Your task to perform on an android device: toggle notification dots Image 0: 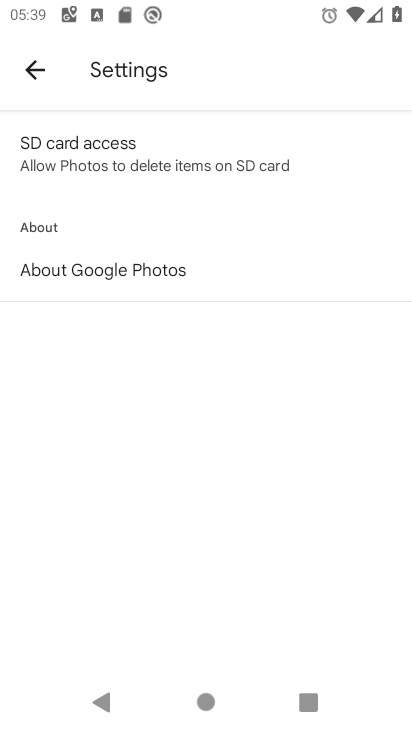
Step 0: press home button
Your task to perform on an android device: toggle notification dots Image 1: 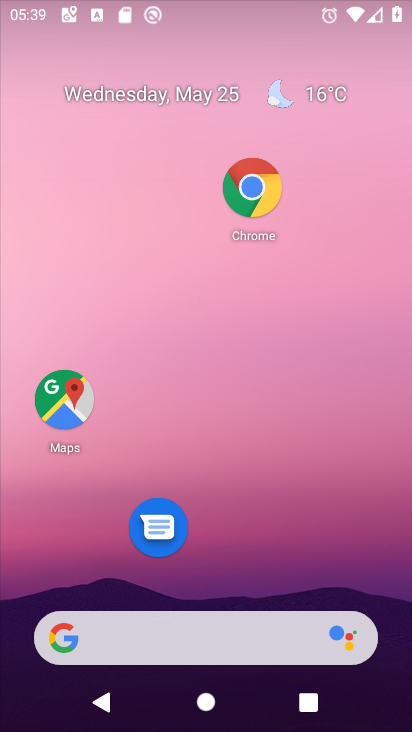
Step 1: drag from (287, 643) to (328, 43)
Your task to perform on an android device: toggle notification dots Image 2: 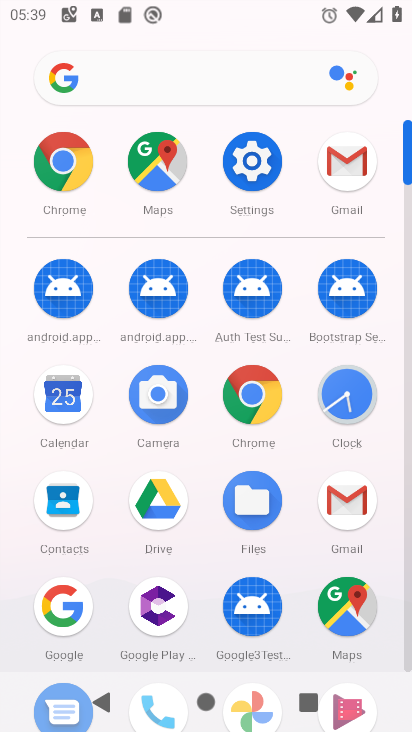
Step 2: click (271, 166)
Your task to perform on an android device: toggle notification dots Image 3: 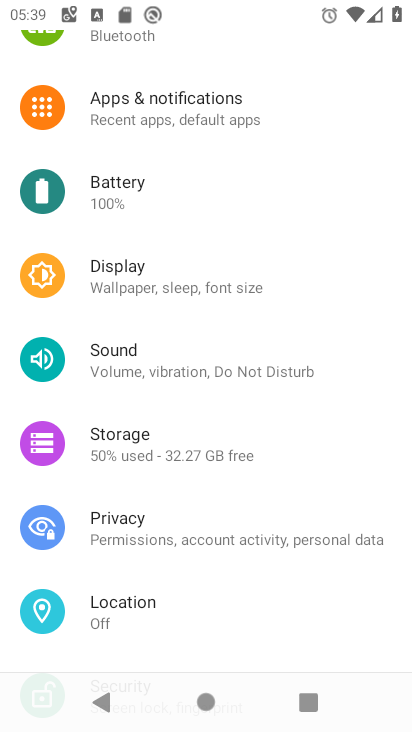
Step 3: click (184, 93)
Your task to perform on an android device: toggle notification dots Image 4: 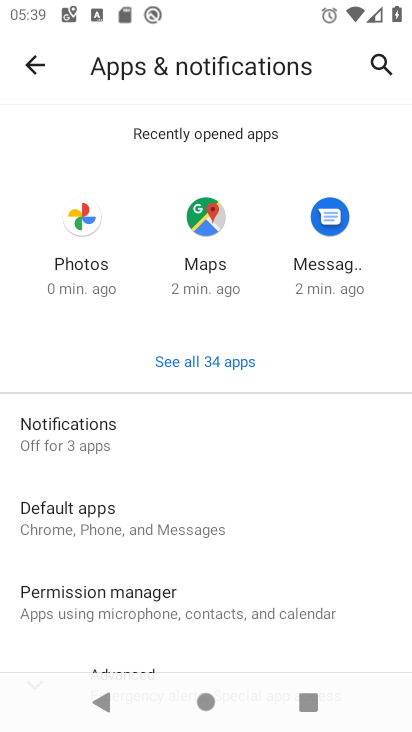
Step 4: drag from (252, 594) to (277, 287)
Your task to perform on an android device: toggle notification dots Image 5: 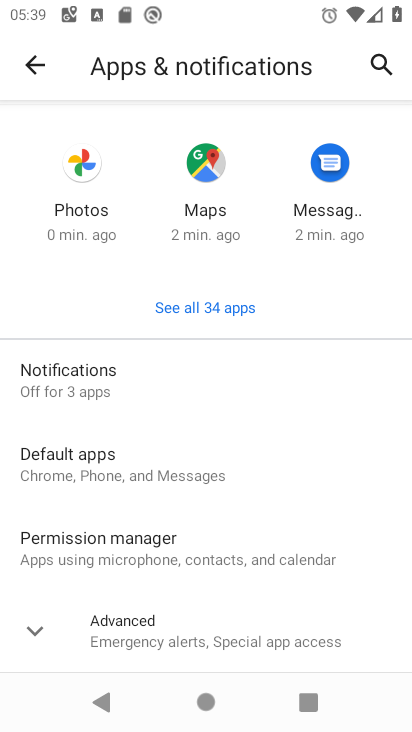
Step 5: click (135, 385)
Your task to perform on an android device: toggle notification dots Image 6: 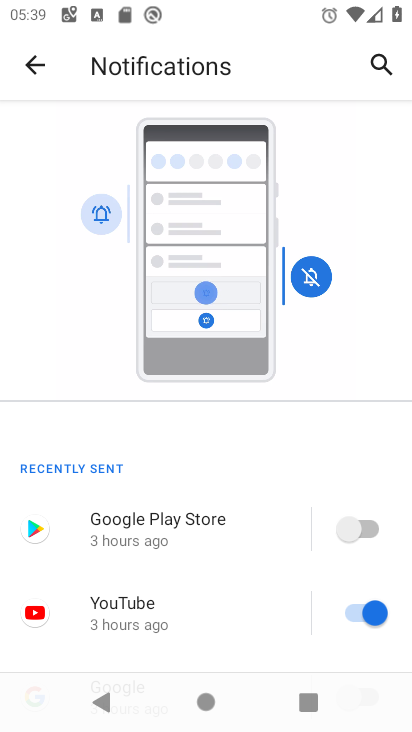
Step 6: drag from (200, 636) to (254, 127)
Your task to perform on an android device: toggle notification dots Image 7: 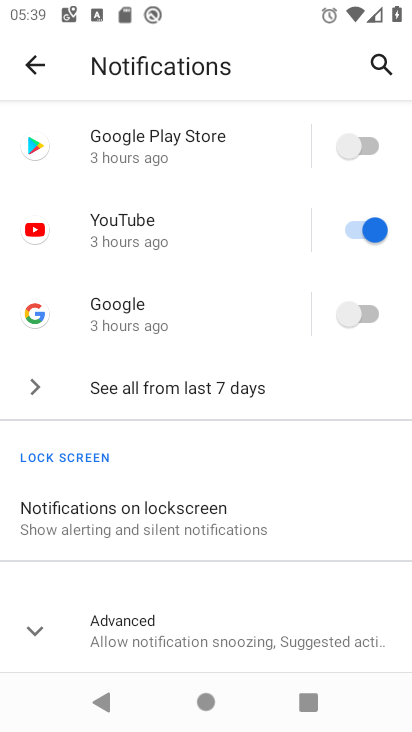
Step 7: click (178, 620)
Your task to perform on an android device: toggle notification dots Image 8: 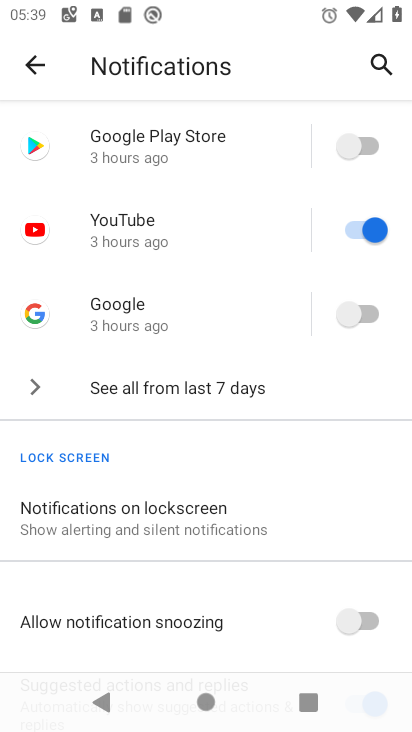
Step 8: drag from (179, 631) to (255, 207)
Your task to perform on an android device: toggle notification dots Image 9: 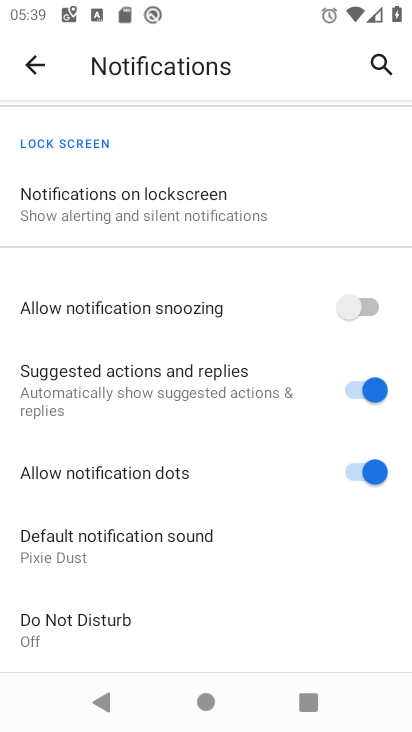
Step 9: drag from (282, 349) to (275, 92)
Your task to perform on an android device: toggle notification dots Image 10: 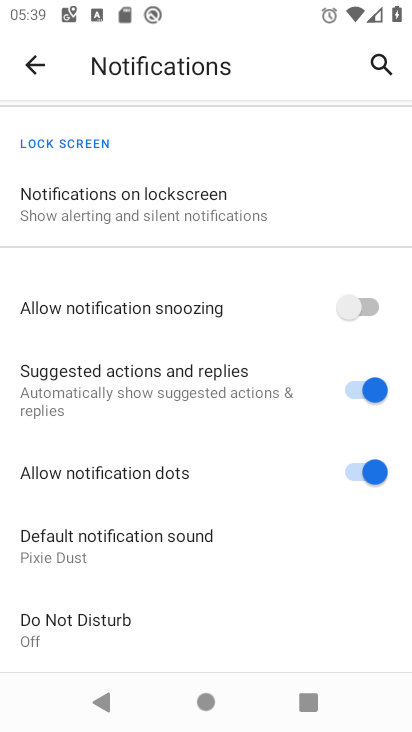
Step 10: click (368, 470)
Your task to perform on an android device: toggle notification dots Image 11: 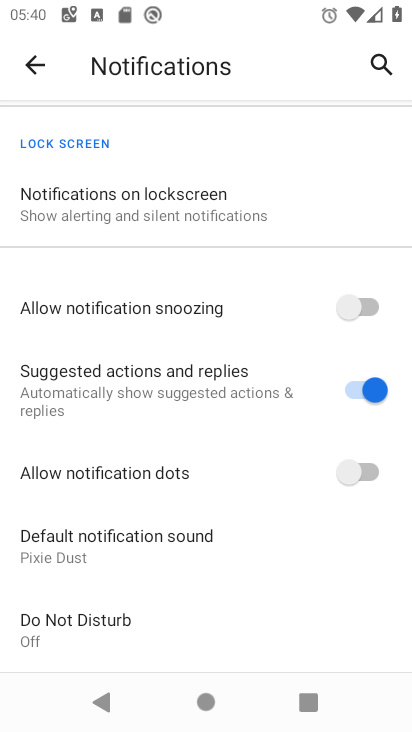
Step 11: task complete